Your task to perform on an android device: Clear the shopping cart on costco. Search for "lenovo thinkpad" on costco, select the first entry, add it to the cart, then select checkout. Image 0: 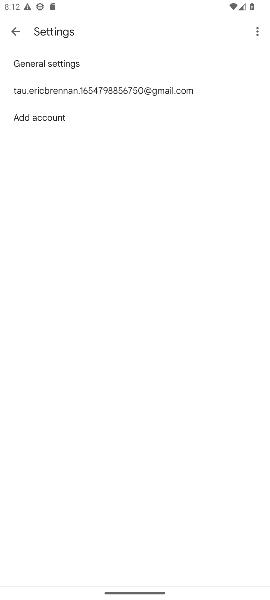
Step 0: press home button
Your task to perform on an android device: Clear the shopping cart on costco. Search for "lenovo thinkpad" on costco, select the first entry, add it to the cart, then select checkout. Image 1: 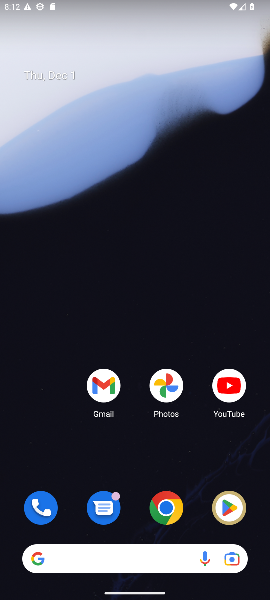
Step 1: click (165, 515)
Your task to perform on an android device: Clear the shopping cart on costco. Search for "lenovo thinkpad" on costco, select the first entry, add it to the cart, then select checkout. Image 2: 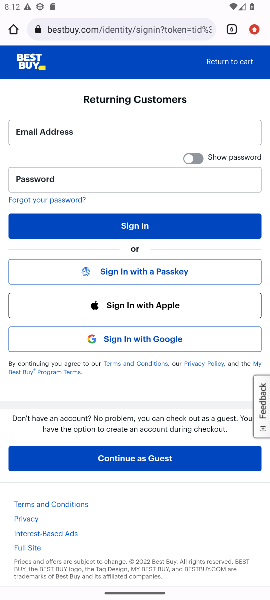
Step 2: click (230, 32)
Your task to perform on an android device: Clear the shopping cart on costco. Search for "lenovo thinkpad" on costco, select the first entry, add it to the cart, then select checkout. Image 3: 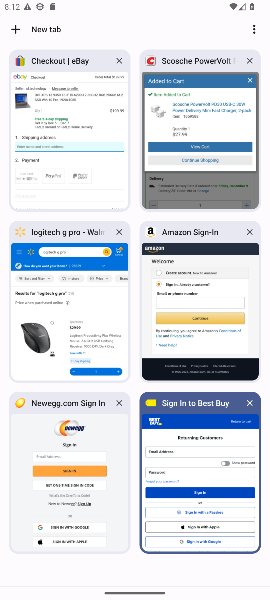
Step 3: click (196, 91)
Your task to perform on an android device: Clear the shopping cart on costco. Search for "lenovo thinkpad" on costco, select the first entry, add it to the cart, then select checkout. Image 4: 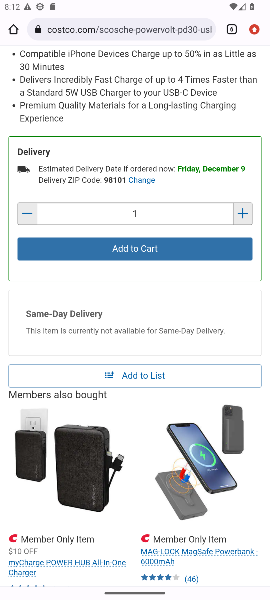
Step 4: drag from (196, 91) to (196, 470)
Your task to perform on an android device: Clear the shopping cart on costco. Search for "lenovo thinkpad" on costco, select the first entry, add it to the cart, then select checkout. Image 5: 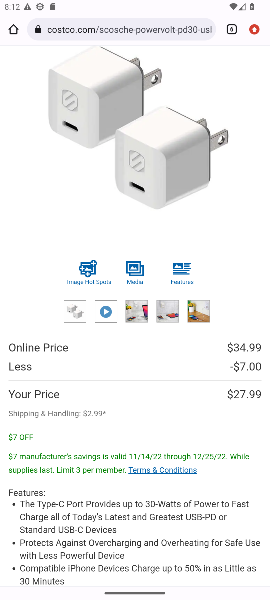
Step 5: drag from (212, 72) to (175, 451)
Your task to perform on an android device: Clear the shopping cart on costco. Search for "lenovo thinkpad" on costco, select the first entry, add it to the cart, then select checkout. Image 6: 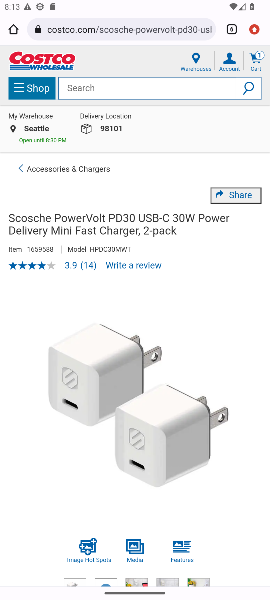
Step 6: click (258, 62)
Your task to perform on an android device: Clear the shopping cart on costco. Search for "lenovo thinkpad" on costco, select the first entry, add it to the cart, then select checkout. Image 7: 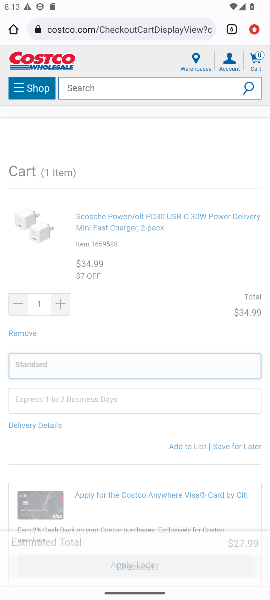
Step 7: click (20, 335)
Your task to perform on an android device: Clear the shopping cart on costco. Search for "lenovo thinkpad" on costco, select the first entry, add it to the cart, then select checkout. Image 8: 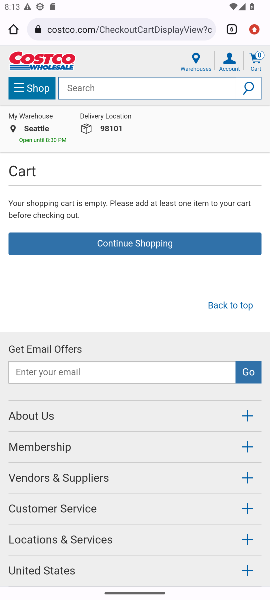
Step 8: click (92, 85)
Your task to perform on an android device: Clear the shopping cart on costco. Search for "lenovo thinkpad" on costco, select the first entry, add it to the cart, then select checkout. Image 9: 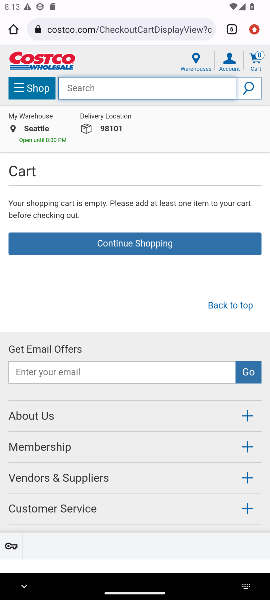
Step 9: type "lenovo thinkpad"
Your task to perform on an android device: Clear the shopping cart on costco. Search for "lenovo thinkpad" on costco, select the first entry, add it to the cart, then select checkout. Image 10: 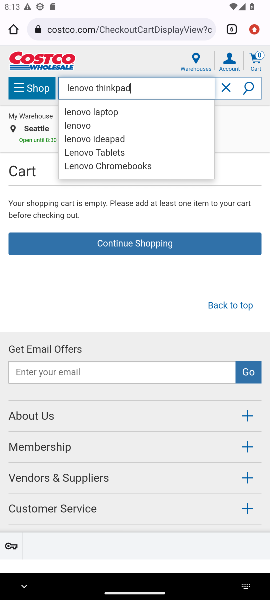
Step 10: click (244, 90)
Your task to perform on an android device: Clear the shopping cart on costco. Search for "lenovo thinkpad" on costco, select the first entry, add it to the cart, then select checkout. Image 11: 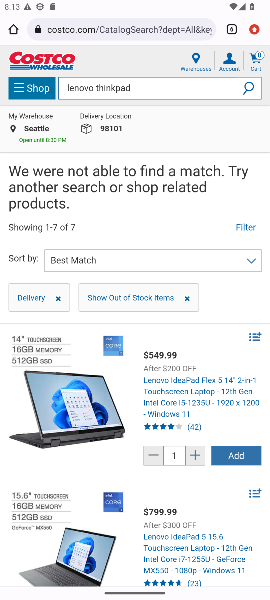
Step 11: click (85, 417)
Your task to perform on an android device: Clear the shopping cart on costco. Search for "lenovo thinkpad" on costco, select the first entry, add it to the cart, then select checkout. Image 12: 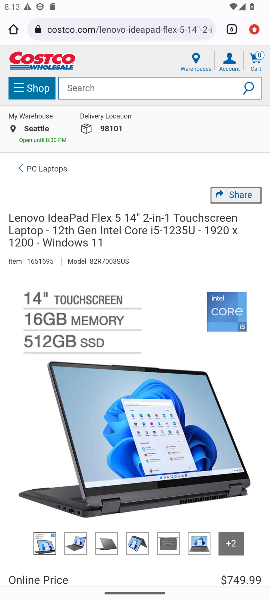
Step 12: drag from (159, 572) to (112, 137)
Your task to perform on an android device: Clear the shopping cart on costco. Search for "lenovo thinkpad" on costco, select the first entry, add it to the cart, then select checkout. Image 13: 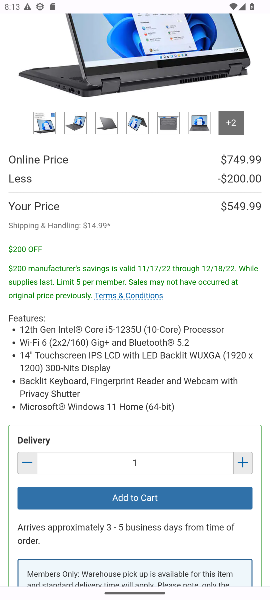
Step 13: click (95, 495)
Your task to perform on an android device: Clear the shopping cart on costco. Search for "lenovo thinkpad" on costco, select the first entry, add it to the cart, then select checkout. Image 14: 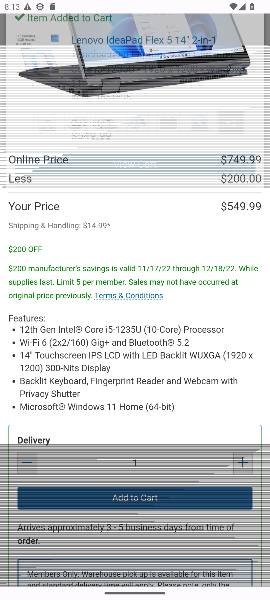
Step 14: click (136, 414)
Your task to perform on an android device: Clear the shopping cart on costco. Search for "lenovo thinkpad" on costco, select the first entry, add it to the cart, then select checkout. Image 15: 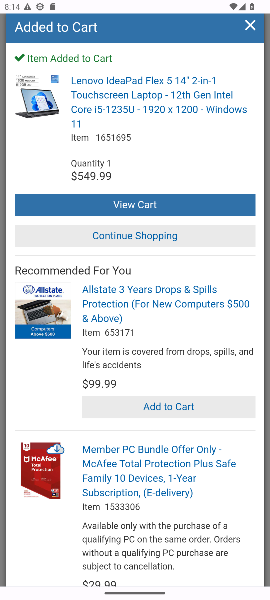
Step 15: click (58, 201)
Your task to perform on an android device: Clear the shopping cart on costco. Search for "lenovo thinkpad" on costco, select the first entry, add it to the cart, then select checkout. Image 16: 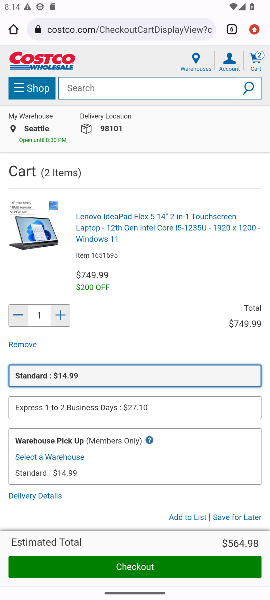
Step 16: click (139, 569)
Your task to perform on an android device: Clear the shopping cart on costco. Search for "lenovo thinkpad" on costco, select the first entry, add it to the cart, then select checkout. Image 17: 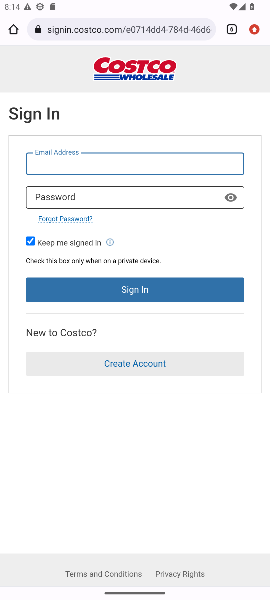
Step 17: task complete